Your task to perform on an android device: Open Google Image 0: 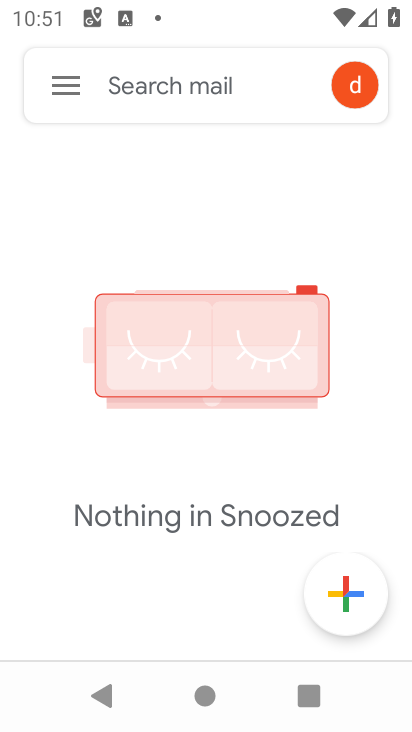
Step 0: press home button
Your task to perform on an android device: Open Google Image 1: 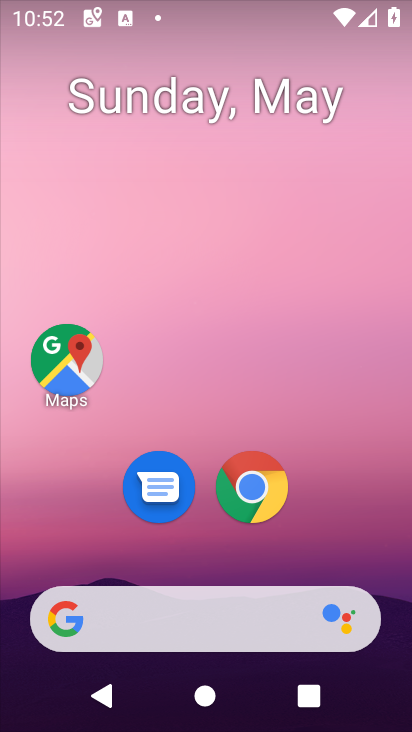
Step 1: drag from (195, 606) to (250, 180)
Your task to perform on an android device: Open Google Image 2: 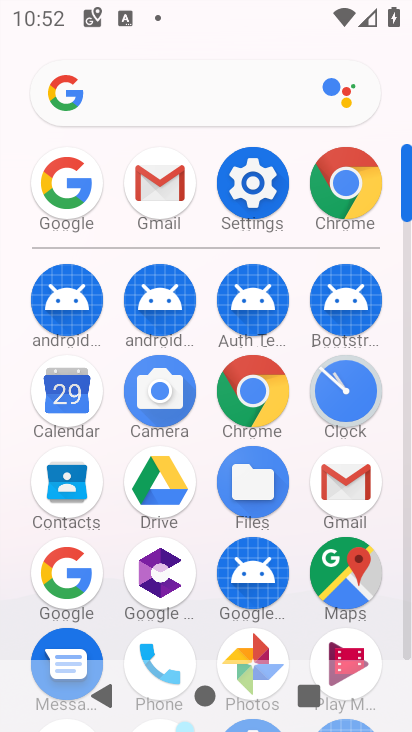
Step 2: drag from (254, 471) to (248, 218)
Your task to perform on an android device: Open Google Image 3: 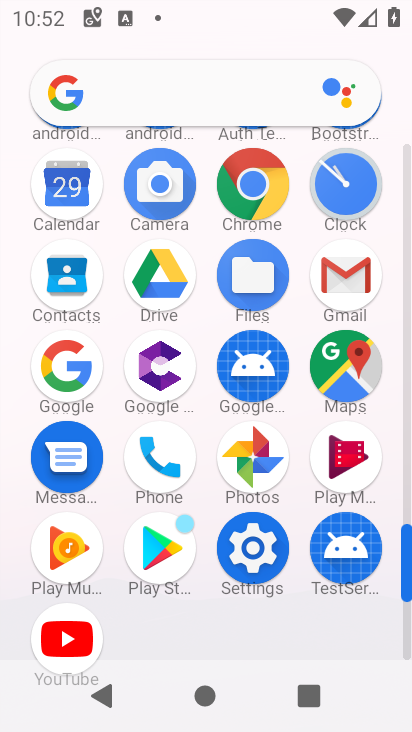
Step 3: click (81, 391)
Your task to perform on an android device: Open Google Image 4: 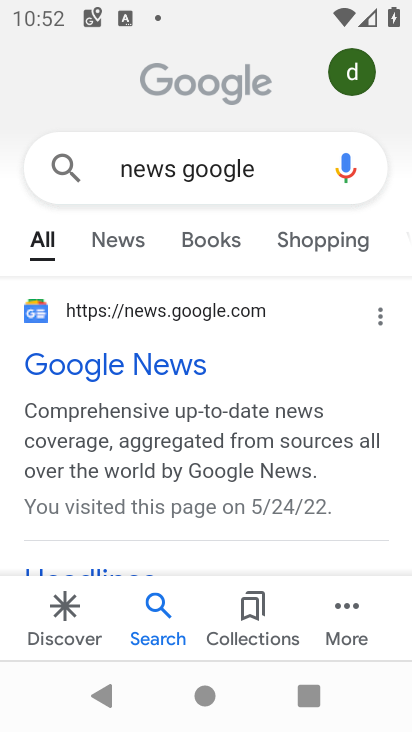
Step 4: task complete